Your task to perform on an android device: Go to internet settings Image 0: 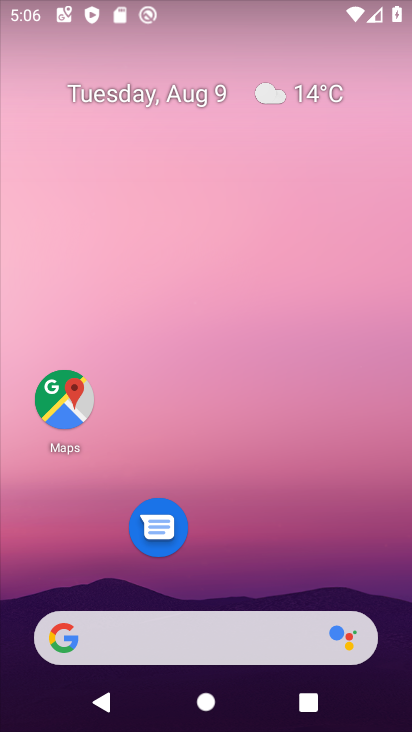
Step 0: drag from (289, 2) to (383, 571)
Your task to perform on an android device: Go to internet settings Image 1: 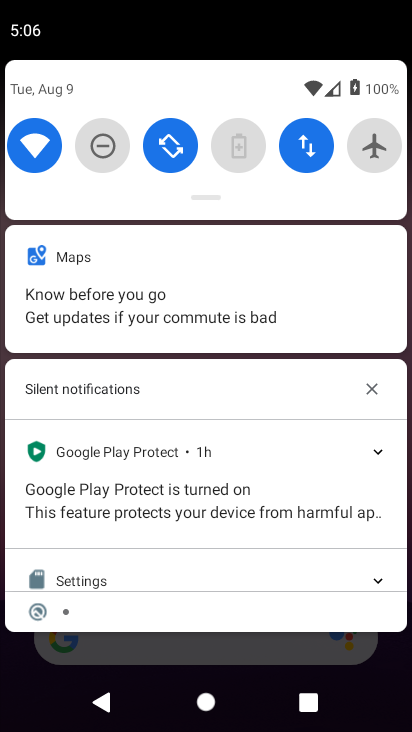
Step 1: click (309, 148)
Your task to perform on an android device: Go to internet settings Image 2: 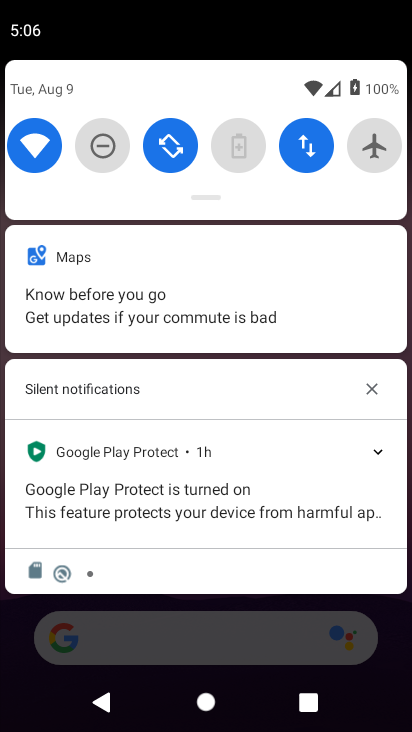
Step 2: click (309, 148)
Your task to perform on an android device: Go to internet settings Image 3: 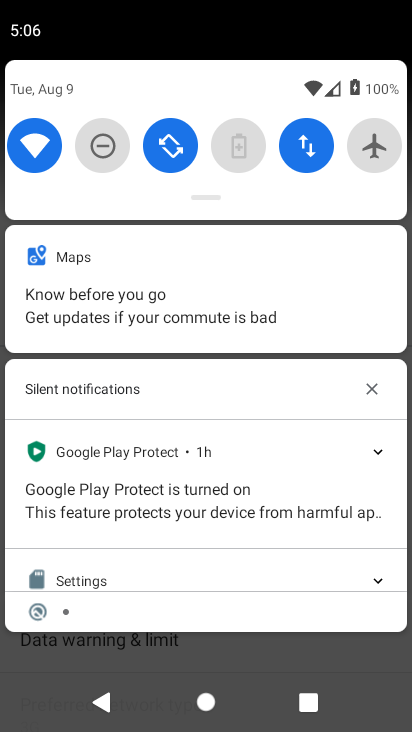
Step 3: click (323, 144)
Your task to perform on an android device: Go to internet settings Image 4: 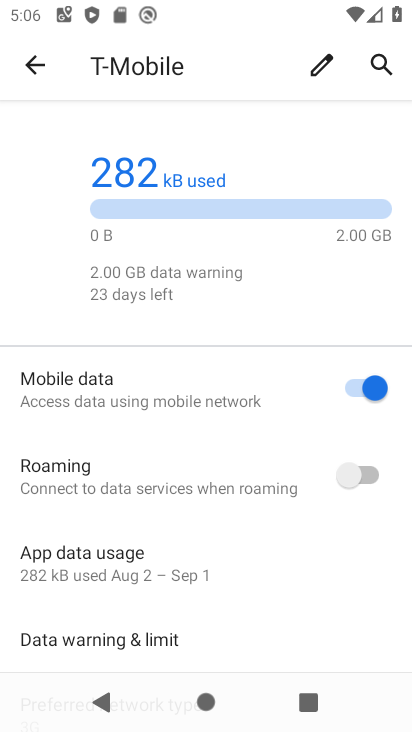
Step 4: task complete